Your task to perform on an android device: find which apps use the phone's location Image 0: 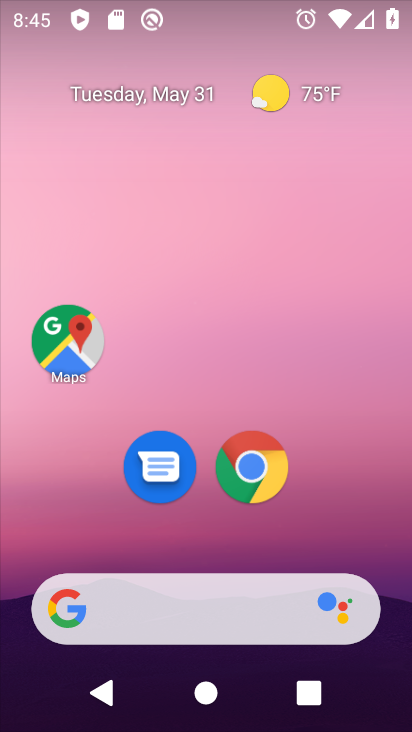
Step 0: drag from (210, 547) to (254, 117)
Your task to perform on an android device: find which apps use the phone's location Image 1: 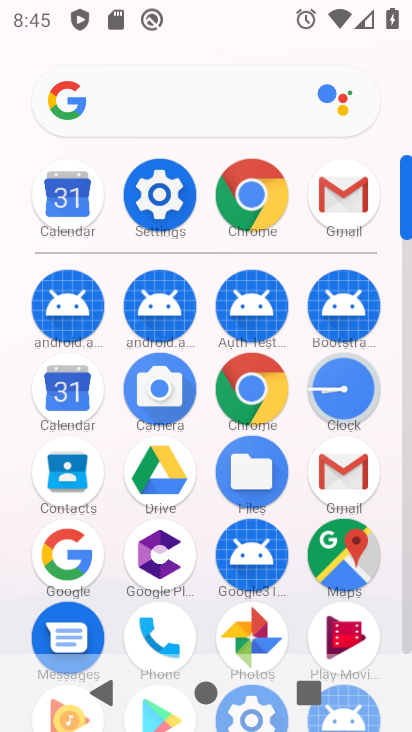
Step 1: click (155, 201)
Your task to perform on an android device: find which apps use the phone's location Image 2: 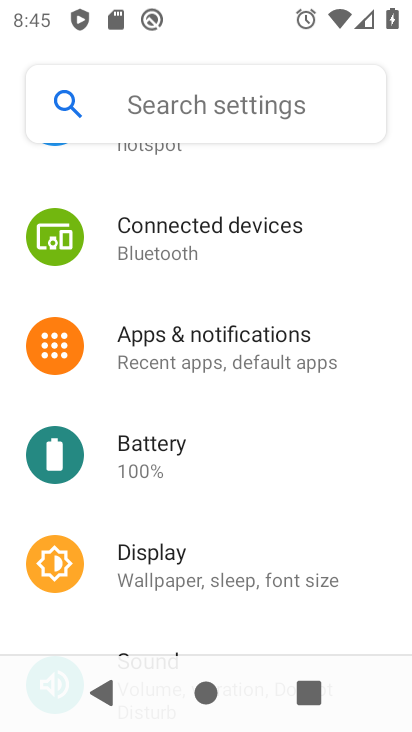
Step 2: drag from (220, 515) to (302, 110)
Your task to perform on an android device: find which apps use the phone's location Image 3: 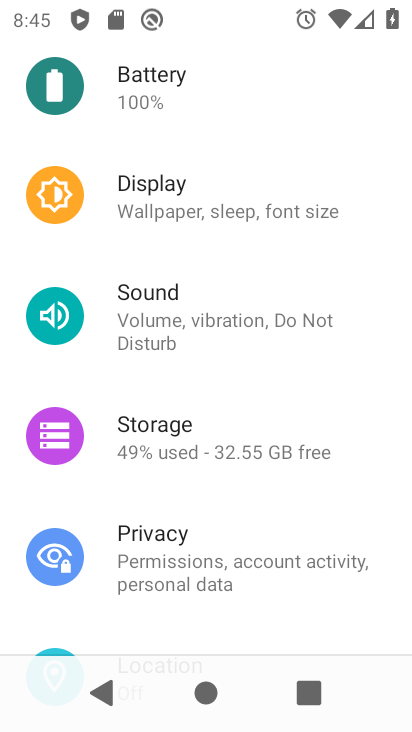
Step 3: drag from (215, 548) to (324, 93)
Your task to perform on an android device: find which apps use the phone's location Image 4: 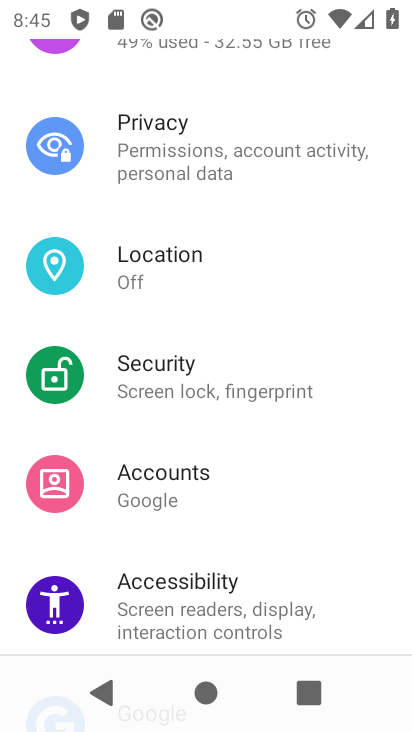
Step 4: click (169, 261)
Your task to perform on an android device: find which apps use the phone's location Image 5: 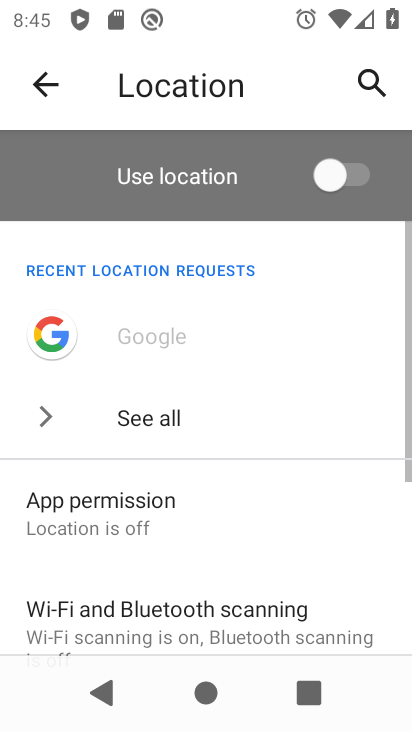
Step 5: click (129, 530)
Your task to perform on an android device: find which apps use the phone's location Image 6: 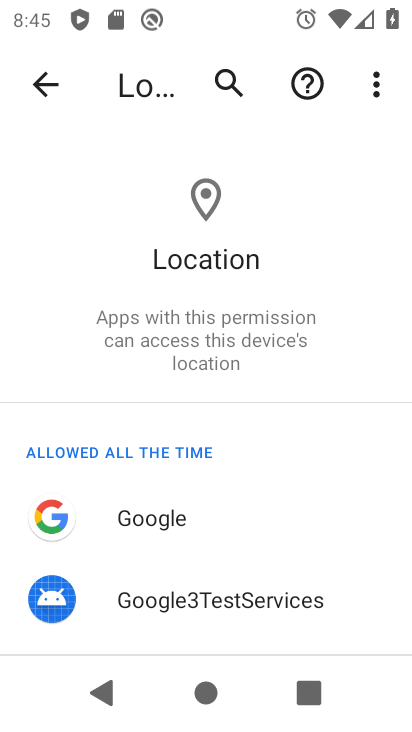
Step 6: task complete